Your task to perform on an android device: toggle notifications settings in the gmail app Image 0: 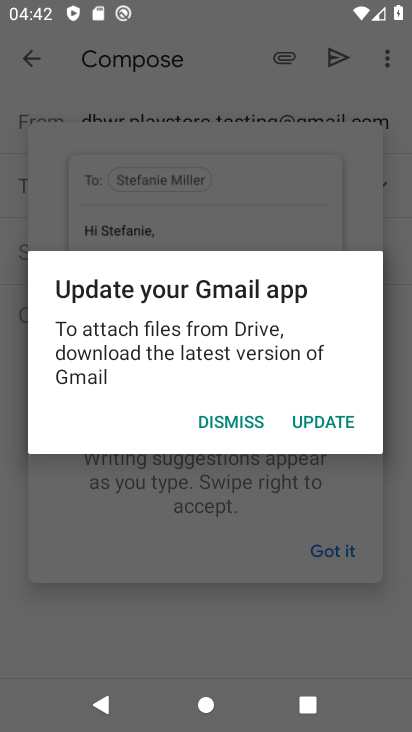
Step 0: press home button
Your task to perform on an android device: toggle notifications settings in the gmail app Image 1: 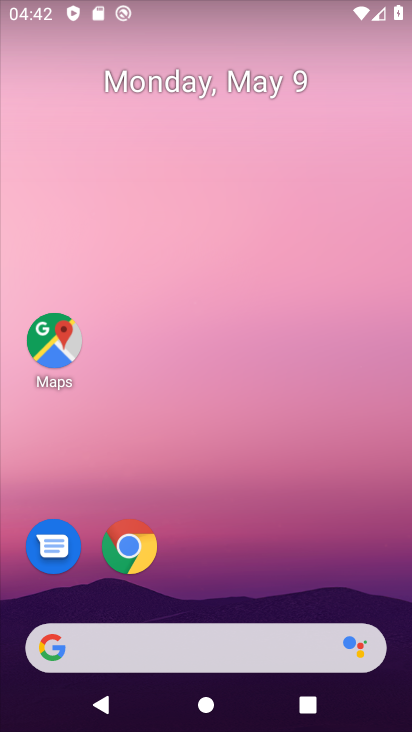
Step 1: drag from (206, 594) to (217, 259)
Your task to perform on an android device: toggle notifications settings in the gmail app Image 2: 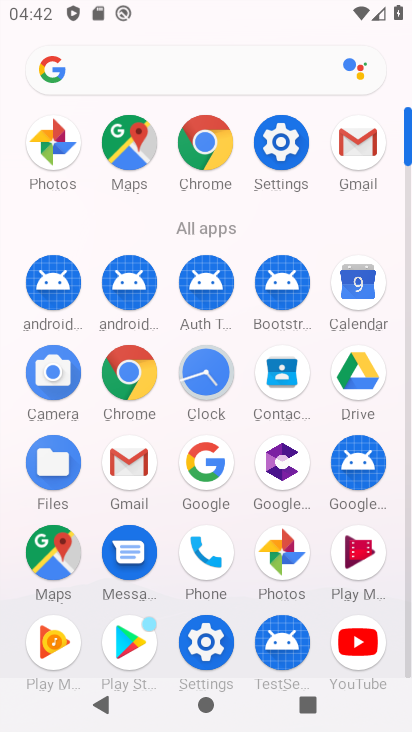
Step 2: click (133, 478)
Your task to perform on an android device: toggle notifications settings in the gmail app Image 3: 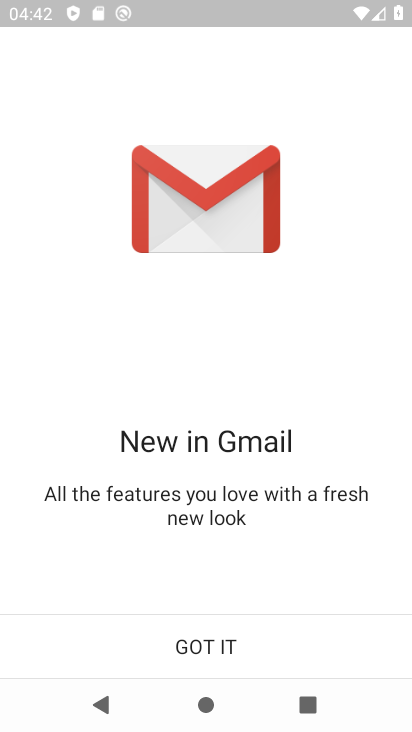
Step 3: click (227, 638)
Your task to perform on an android device: toggle notifications settings in the gmail app Image 4: 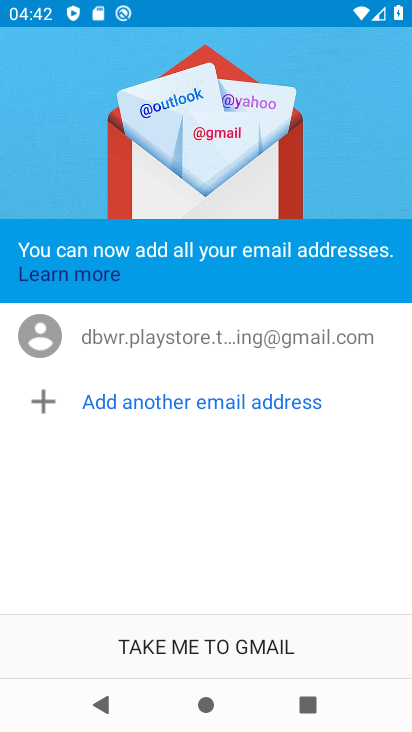
Step 4: click (228, 639)
Your task to perform on an android device: toggle notifications settings in the gmail app Image 5: 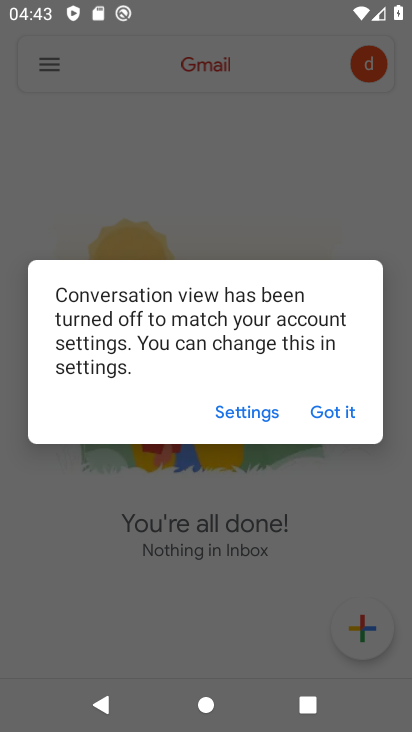
Step 5: click (344, 415)
Your task to perform on an android device: toggle notifications settings in the gmail app Image 6: 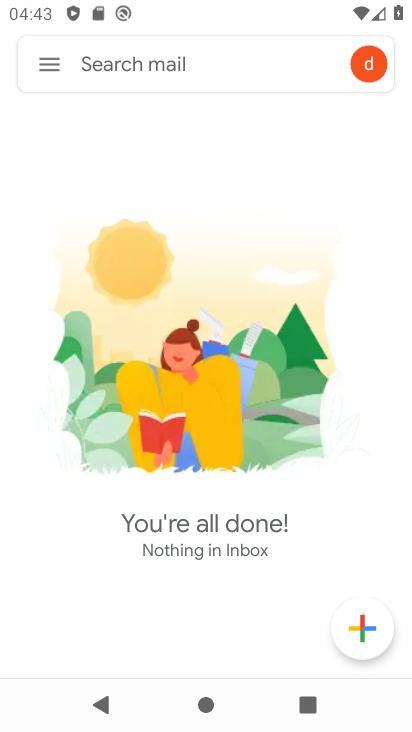
Step 6: click (49, 69)
Your task to perform on an android device: toggle notifications settings in the gmail app Image 7: 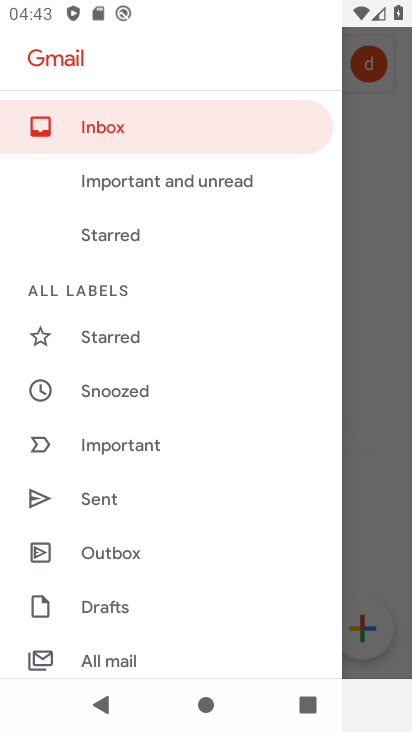
Step 7: drag from (106, 581) to (147, 244)
Your task to perform on an android device: toggle notifications settings in the gmail app Image 8: 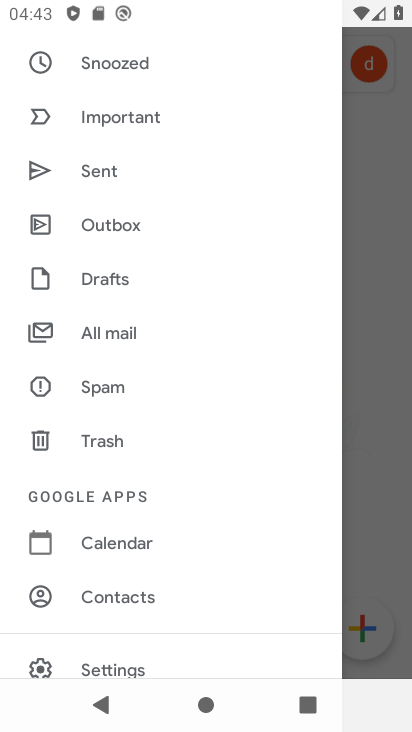
Step 8: drag from (104, 591) to (159, 313)
Your task to perform on an android device: toggle notifications settings in the gmail app Image 9: 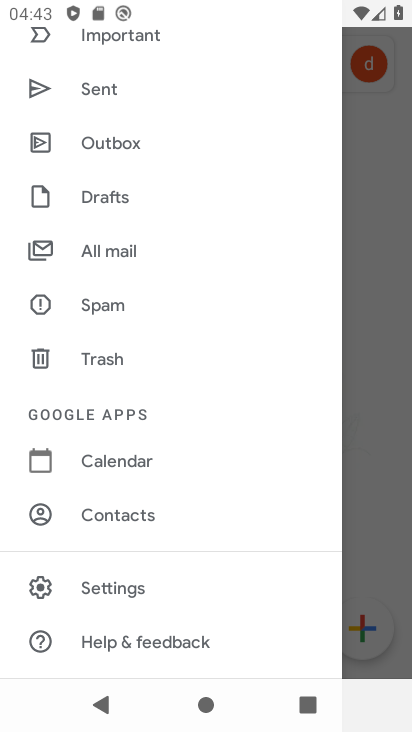
Step 9: click (102, 586)
Your task to perform on an android device: toggle notifications settings in the gmail app Image 10: 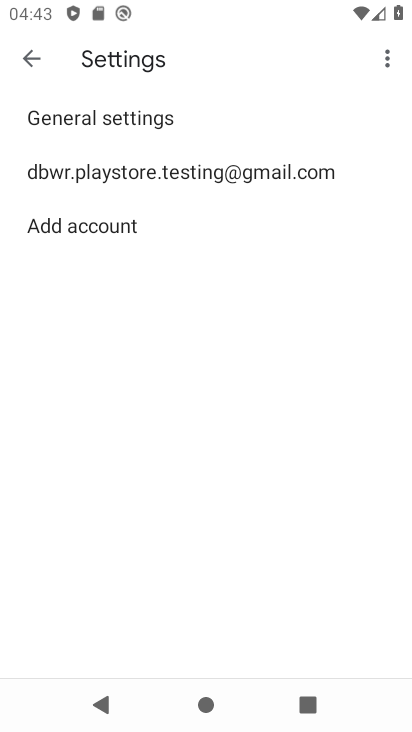
Step 10: click (94, 119)
Your task to perform on an android device: toggle notifications settings in the gmail app Image 11: 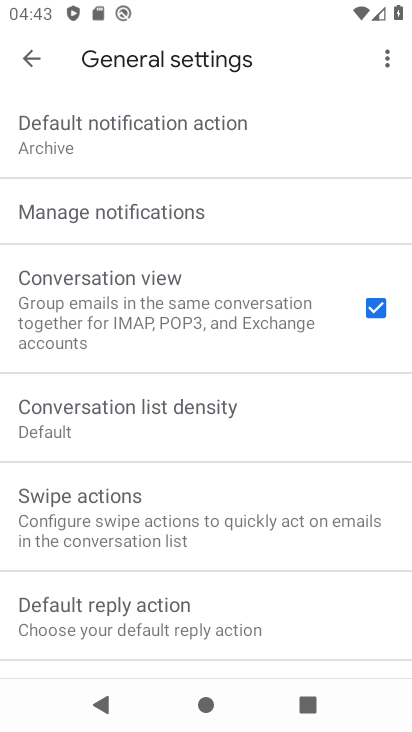
Step 11: click (138, 215)
Your task to perform on an android device: toggle notifications settings in the gmail app Image 12: 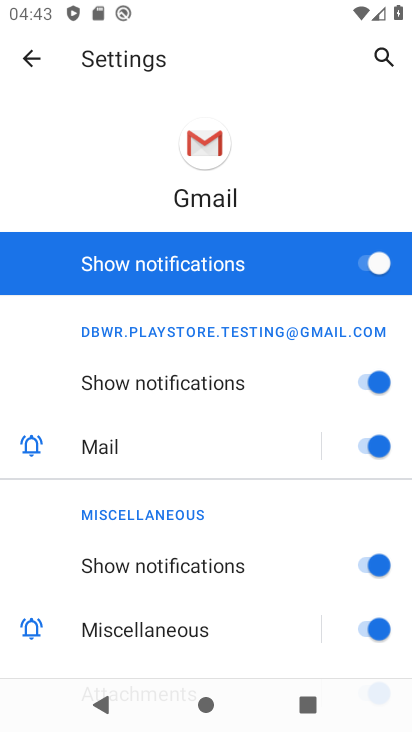
Step 12: click (370, 263)
Your task to perform on an android device: toggle notifications settings in the gmail app Image 13: 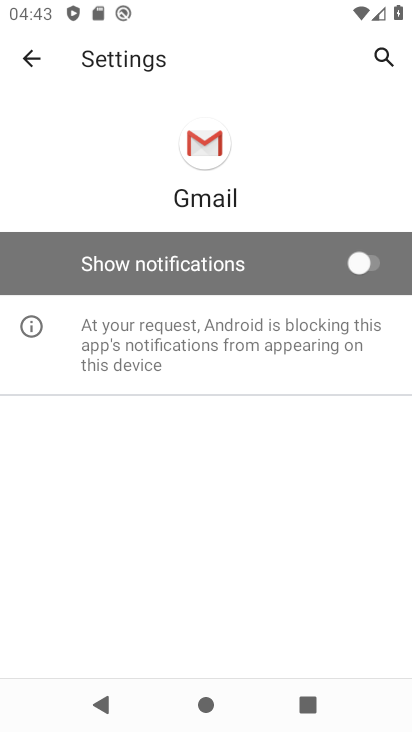
Step 13: task complete